Your task to perform on an android device: Clear all items from cart on walmart. Image 0: 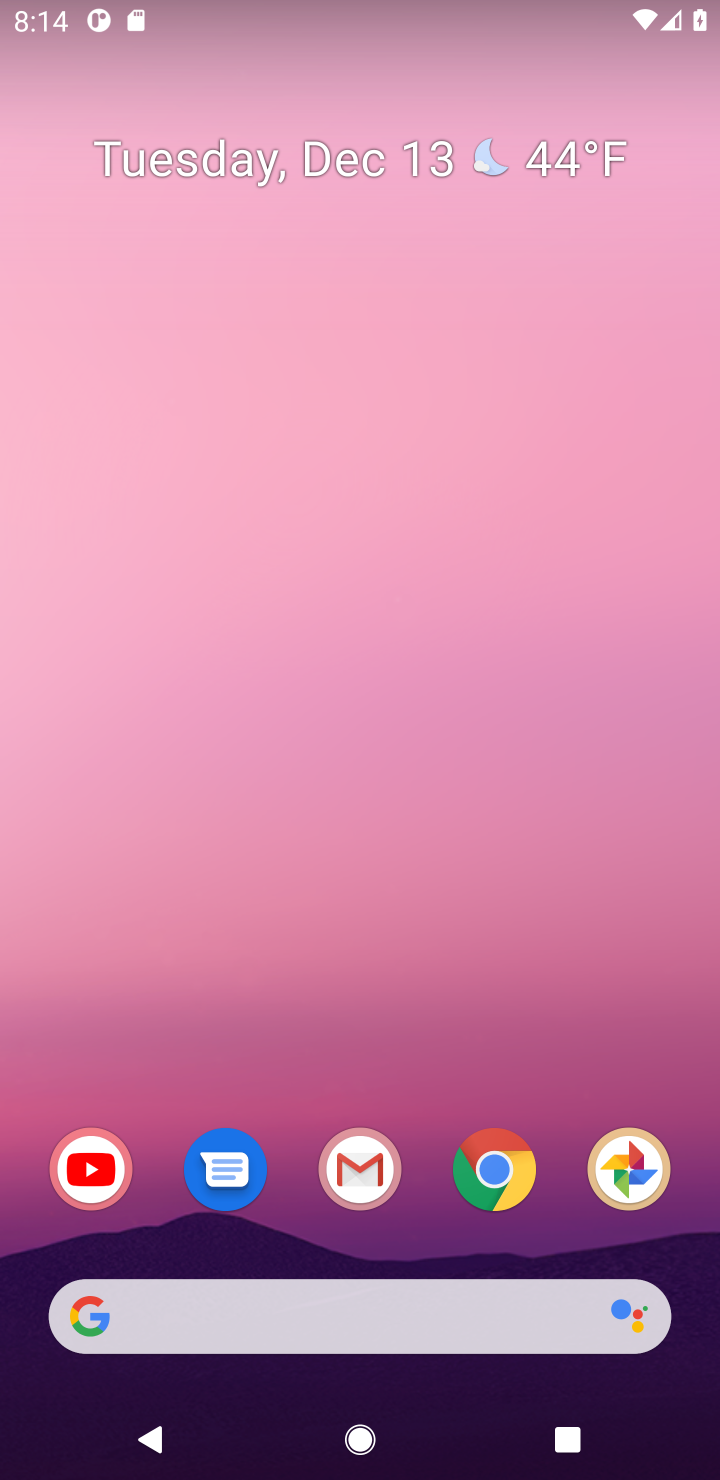
Step 0: click (401, 1300)
Your task to perform on an android device: Clear all items from cart on walmart. Image 1: 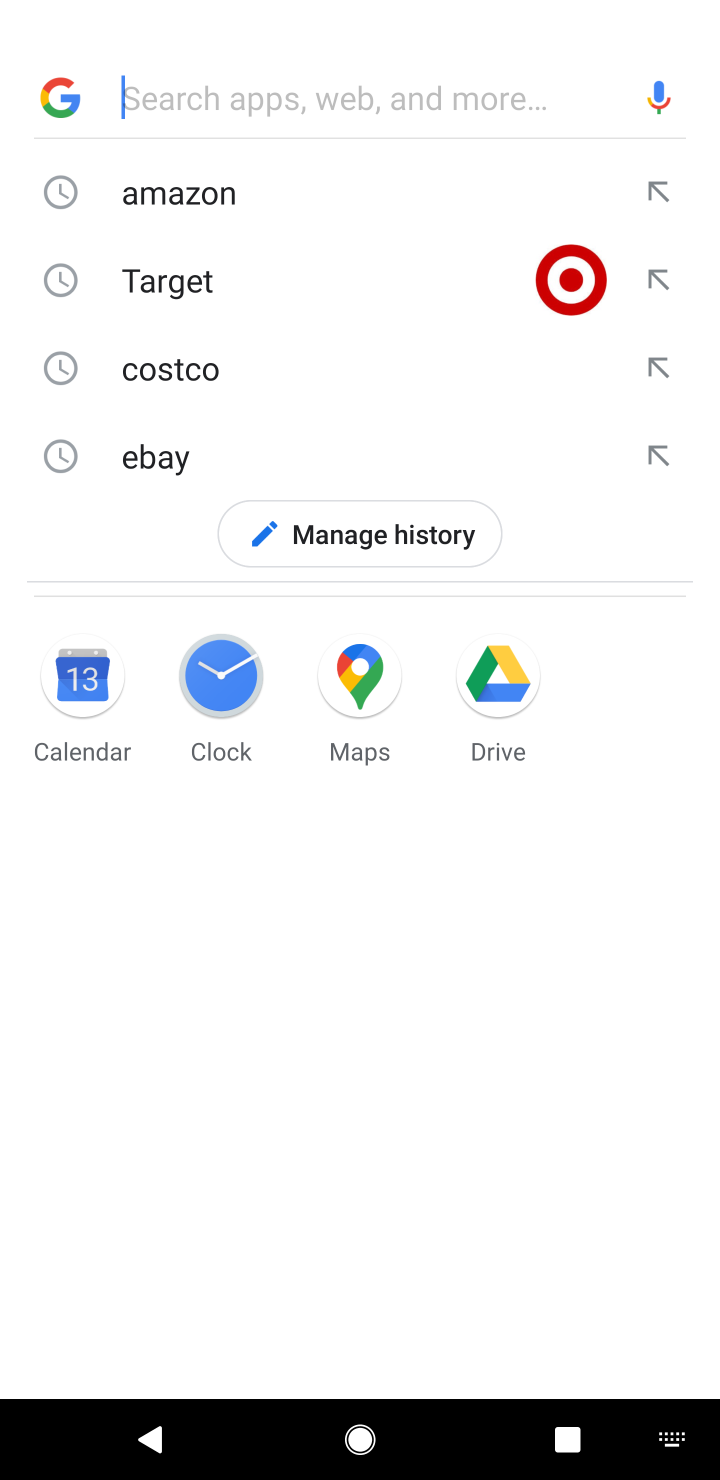
Step 1: type "walmart"
Your task to perform on an android device: Clear all items from cart on walmart. Image 2: 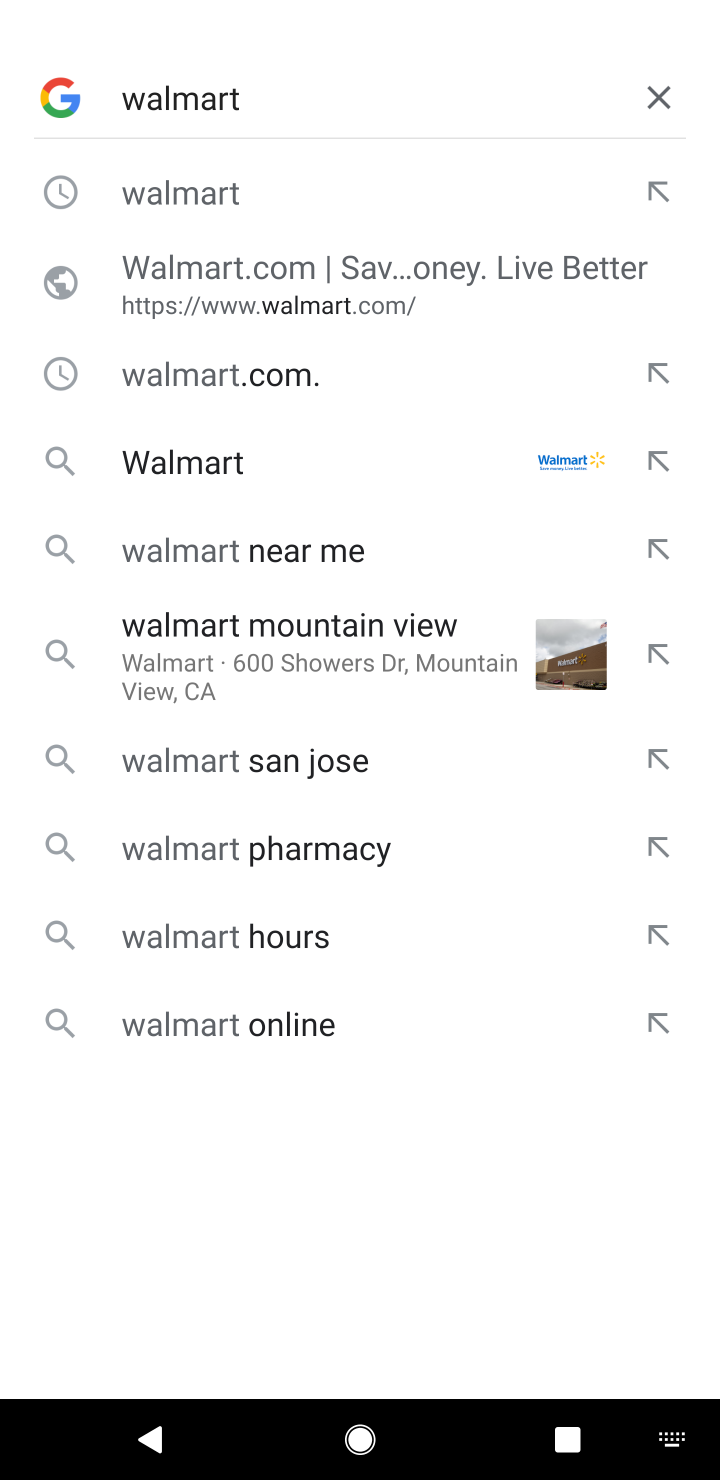
Step 2: click (240, 191)
Your task to perform on an android device: Clear all items from cart on walmart. Image 3: 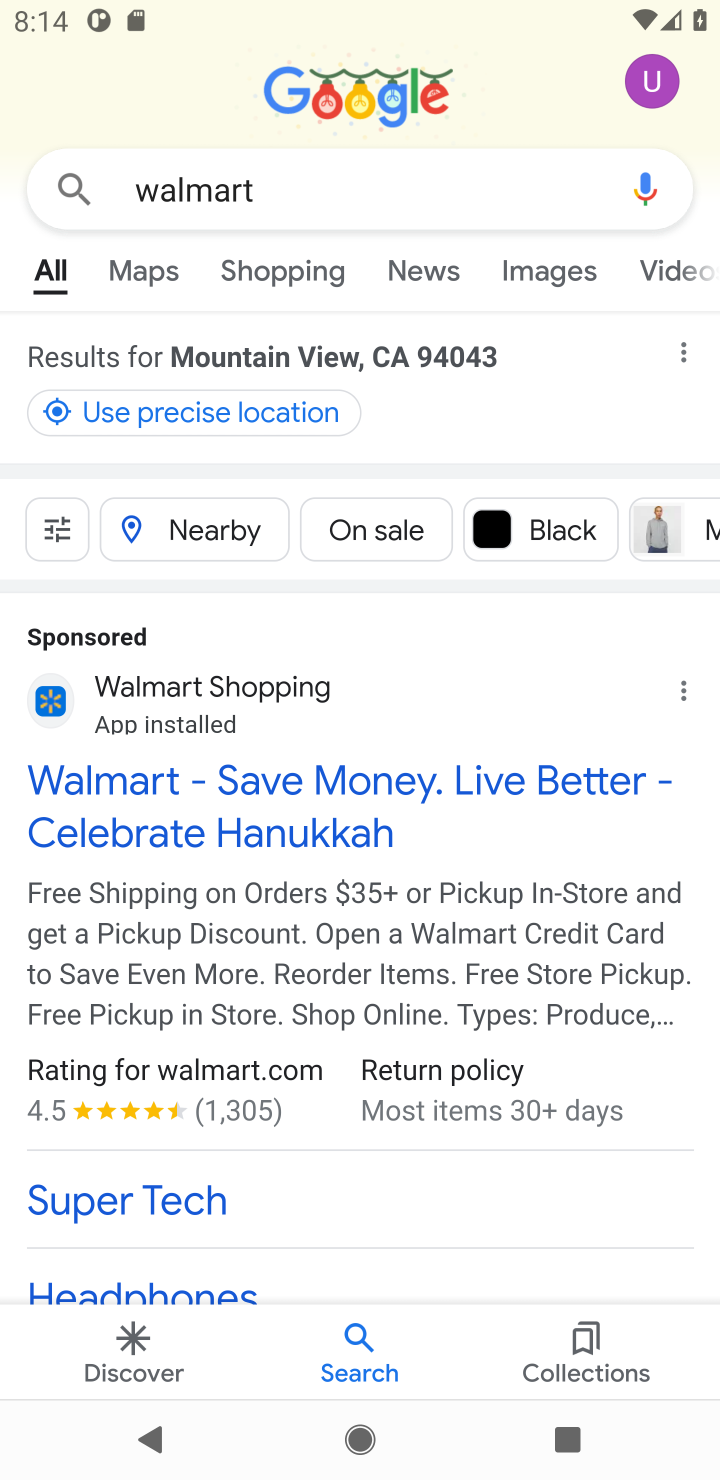
Step 3: click (173, 827)
Your task to perform on an android device: Clear all items from cart on walmart. Image 4: 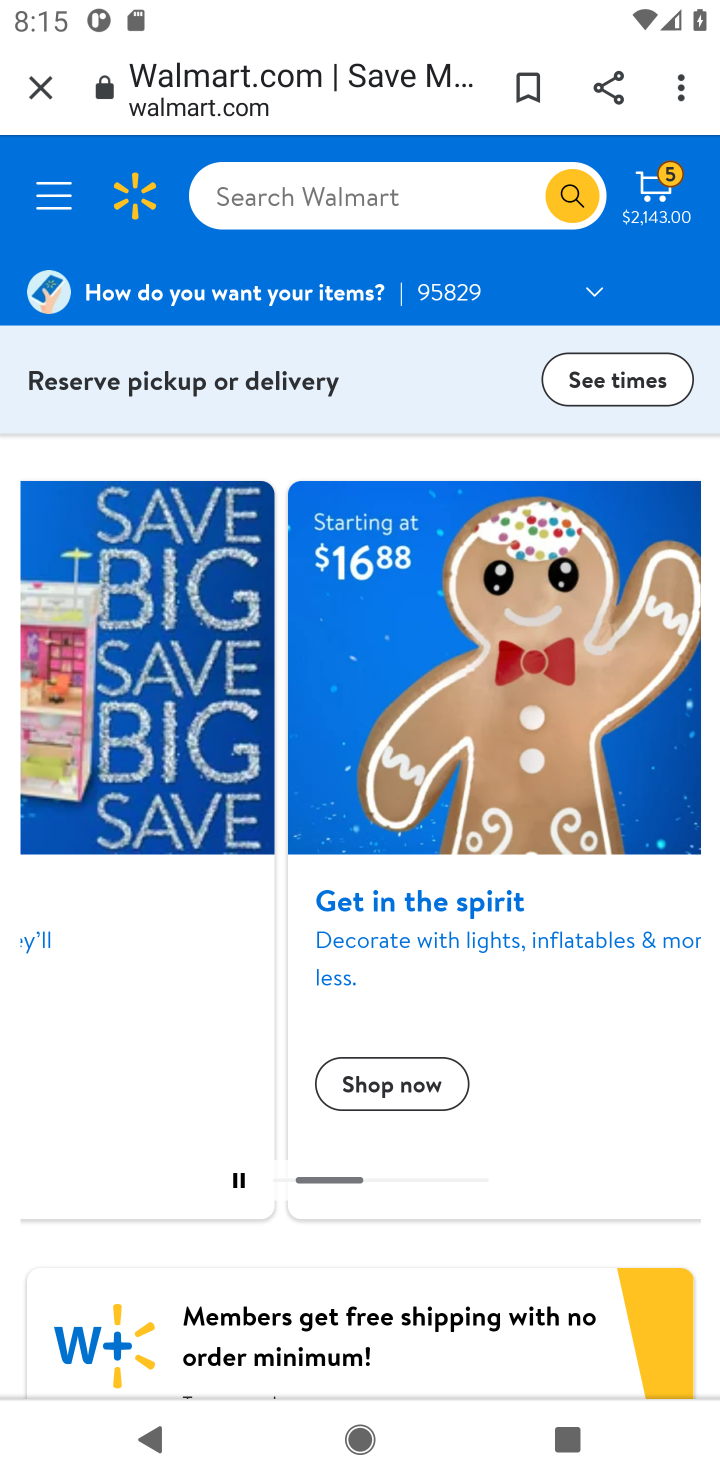
Step 4: click (371, 197)
Your task to perform on an android device: Clear all items from cart on walmart. Image 5: 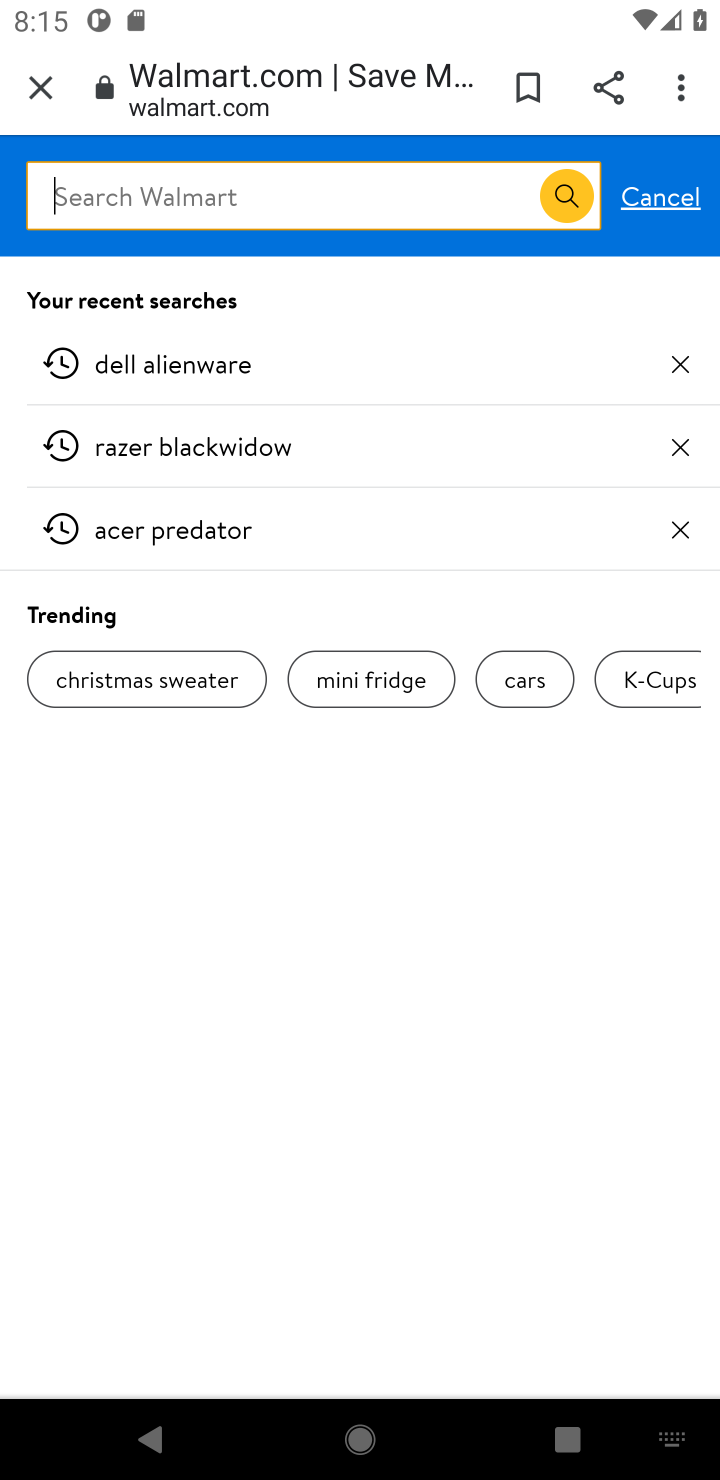
Step 5: click (659, 221)
Your task to perform on an android device: Clear all items from cart on walmart. Image 6: 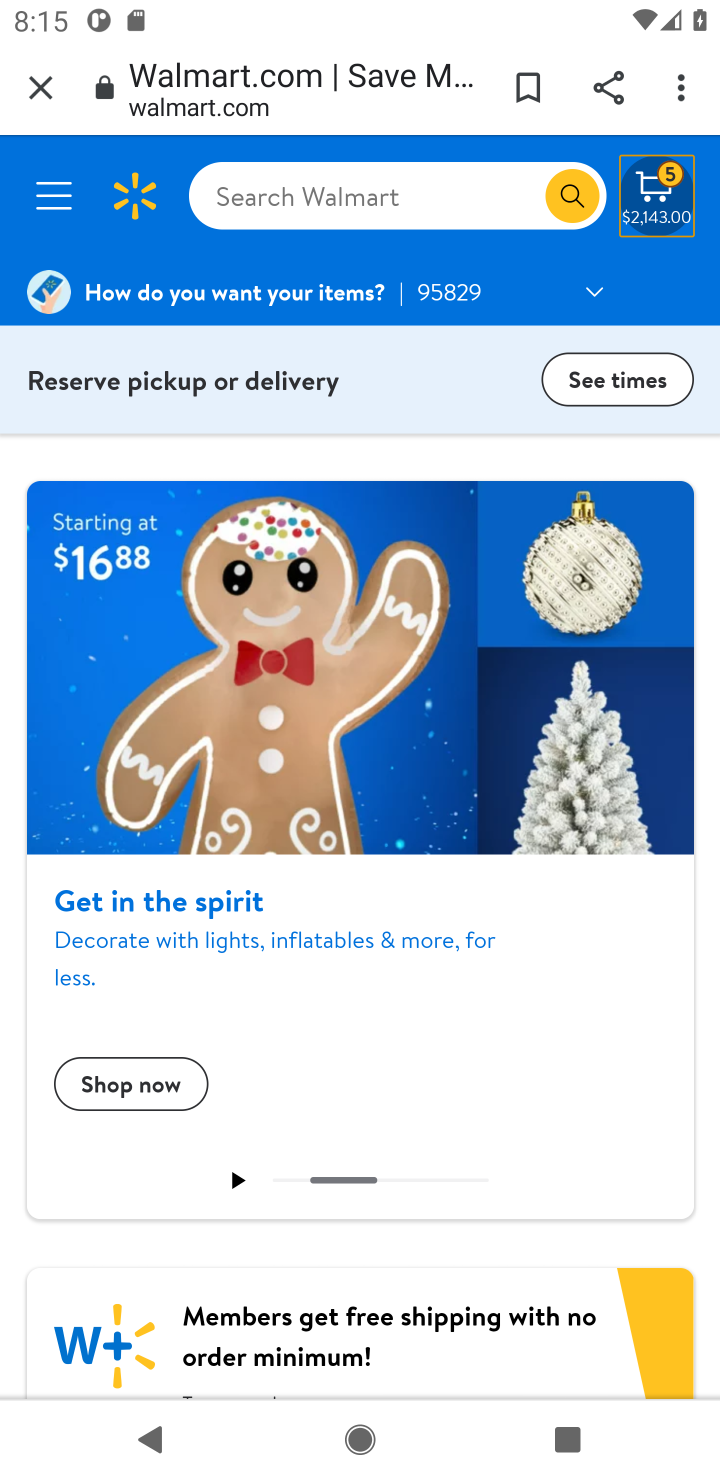
Step 6: click (659, 221)
Your task to perform on an android device: Clear all items from cart on walmart. Image 7: 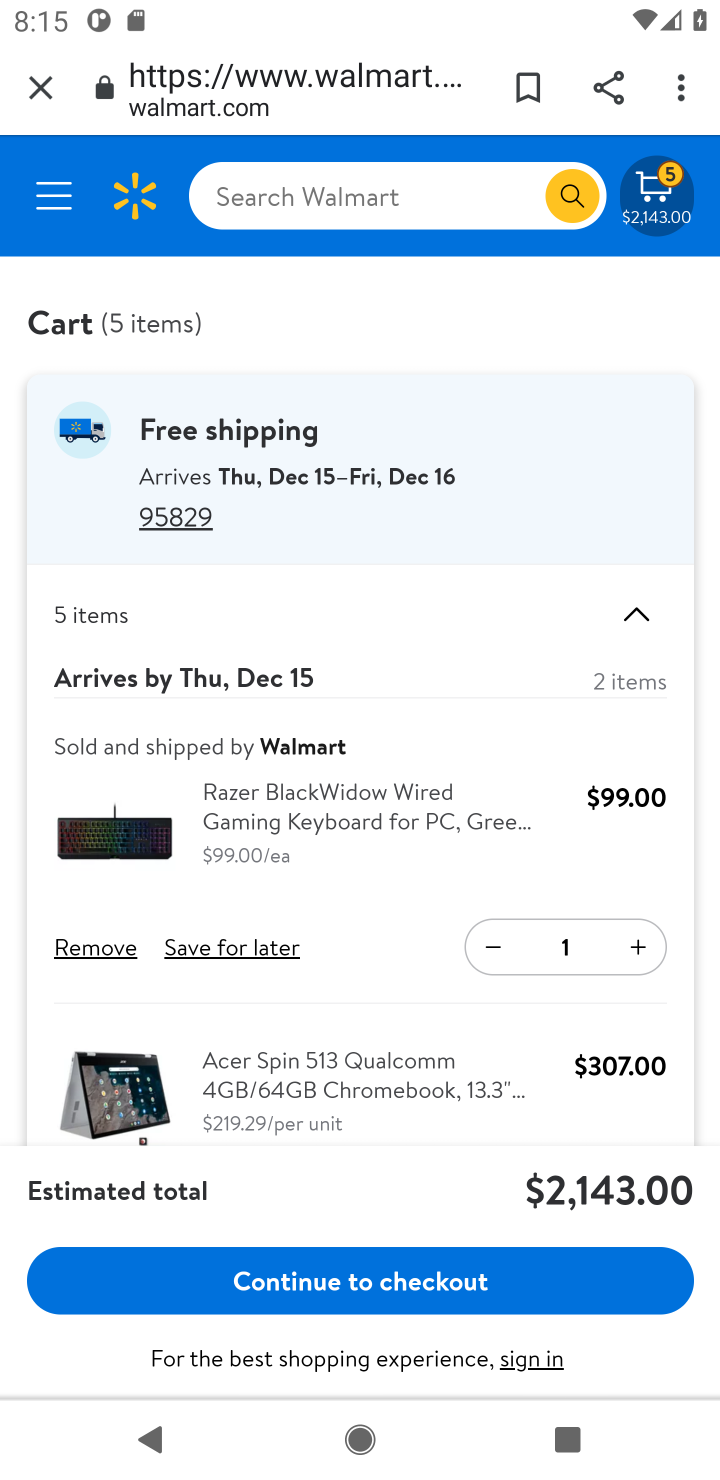
Step 7: click (479, 952)
Your task to perform on an android device: Clear all items from cart on walmart. Image 8: 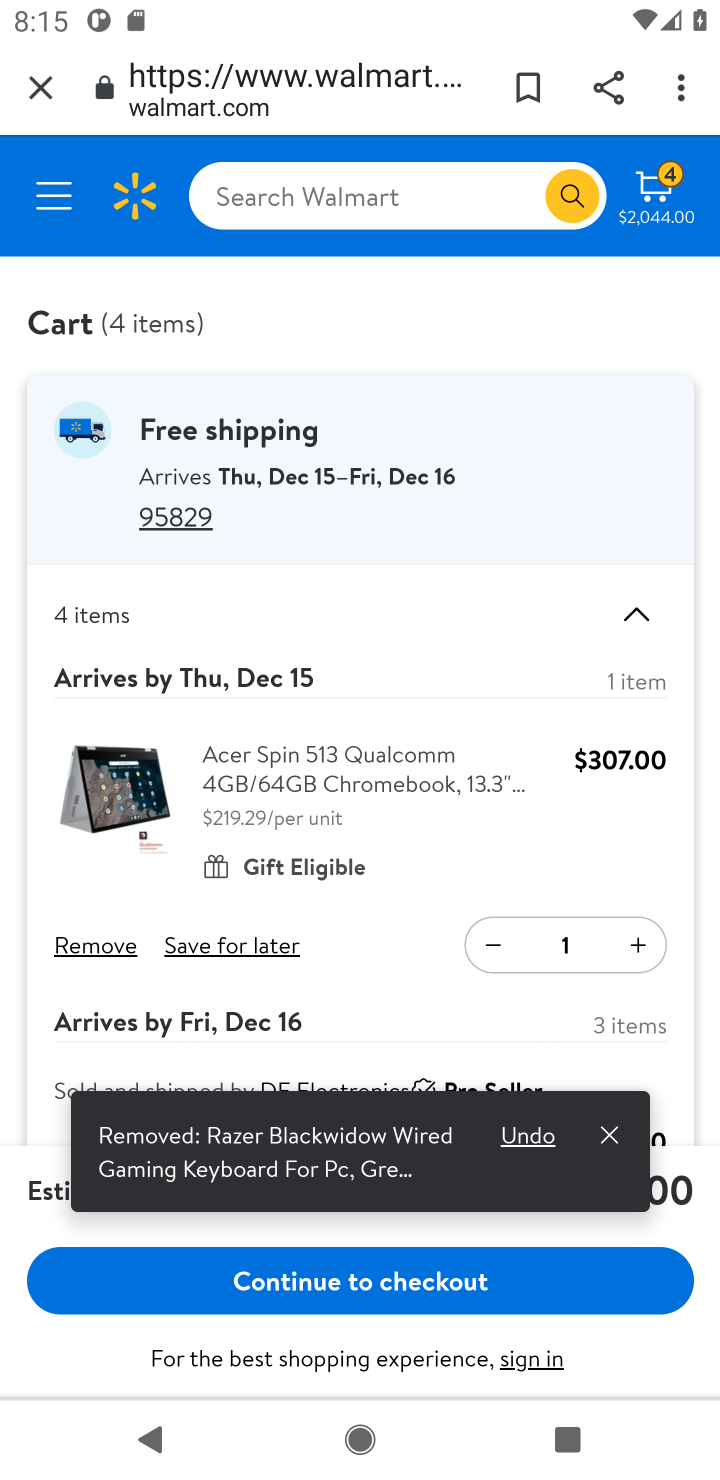
Step 8: click (479, 952)
Your task to perform on an android device: Clear all items from cart on walmart. Image 9: 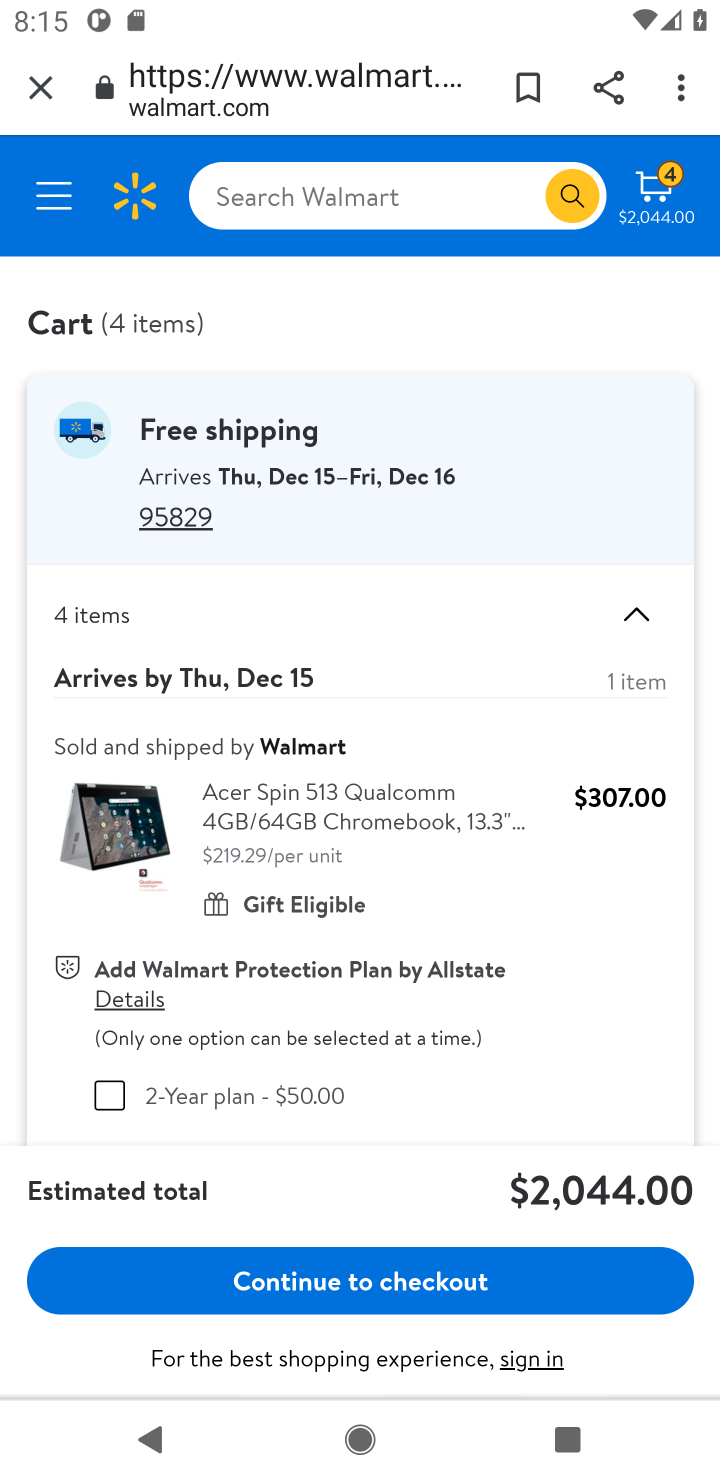
Step 9: click (610, 1156)
Your task to perform on an android device: Clear all items from cart on walmart. Image 10: 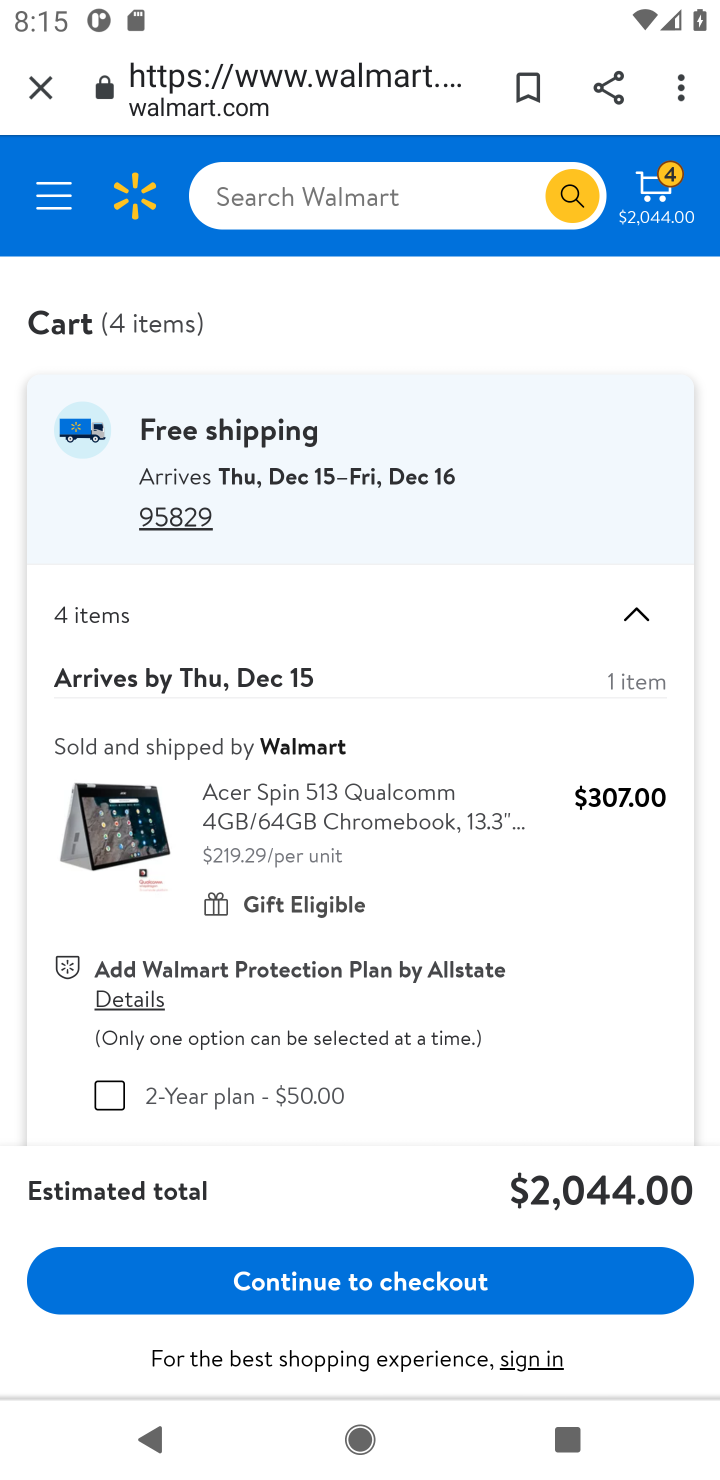
Step 10: drag from (321, 1042) to (343, 793)
Your task to perform on an android device: Clear all items from cart on walmart. Image 11: 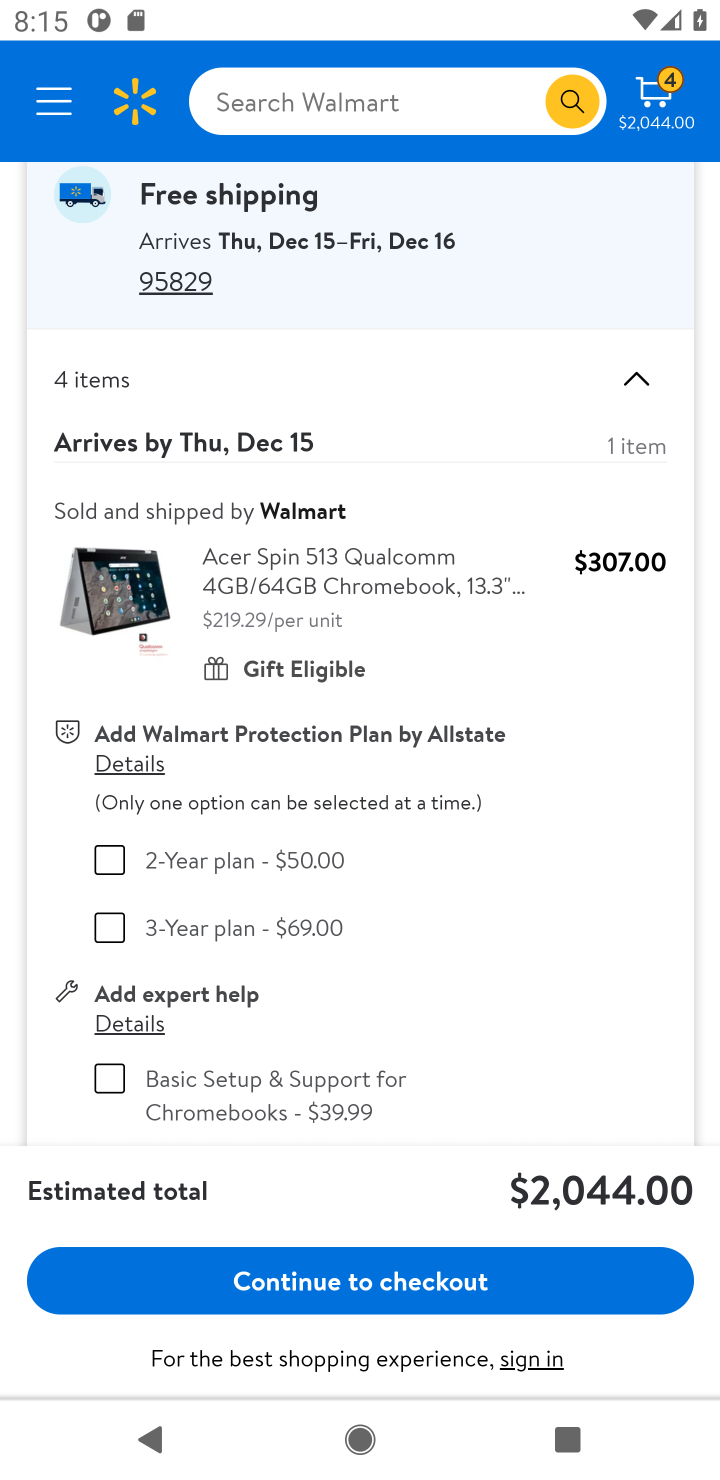
Step 11: drag from (267, 1018) to (328, 750)
Your task to perform on an android device: Clear all items from cart on walmart. Image 12: 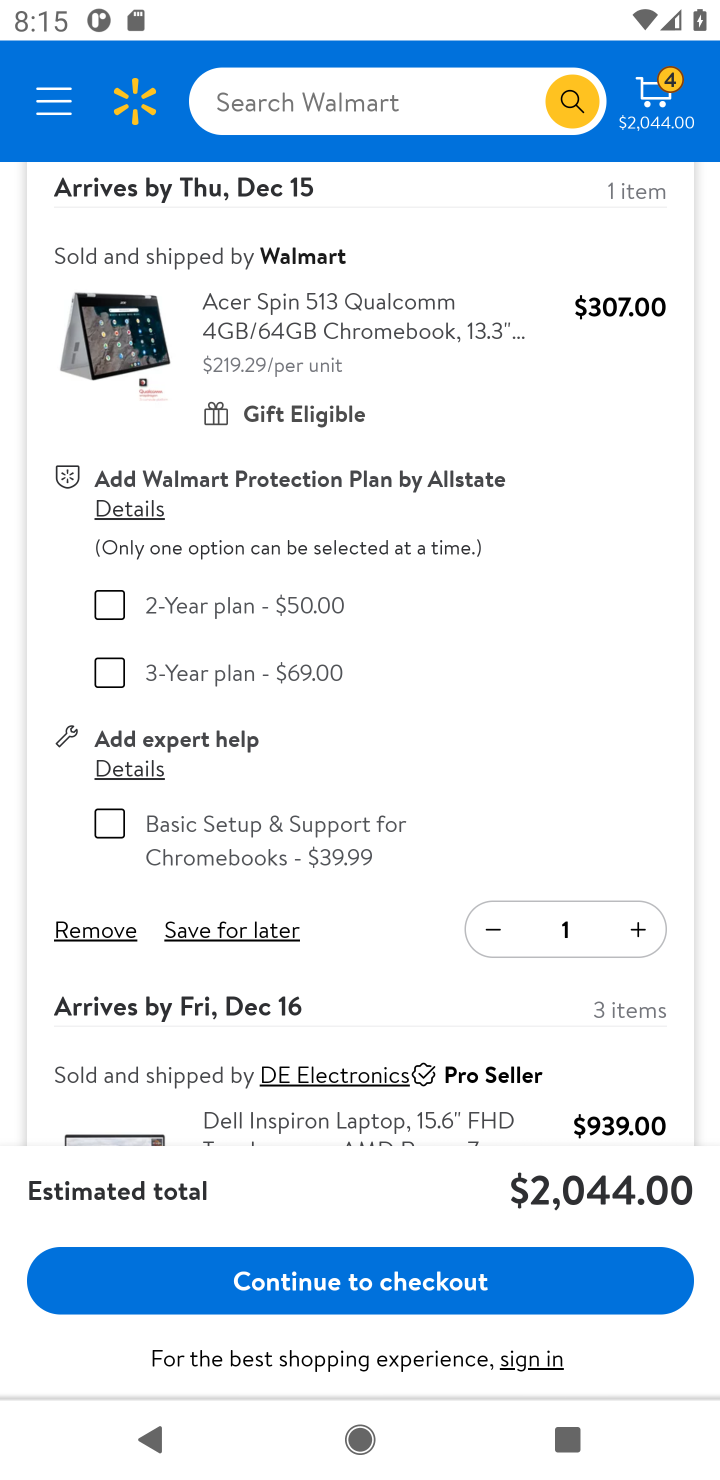
Step 12: click (89, 939)
Your task to perform on an android device: Clear all items from cart on walmart. Image 13: 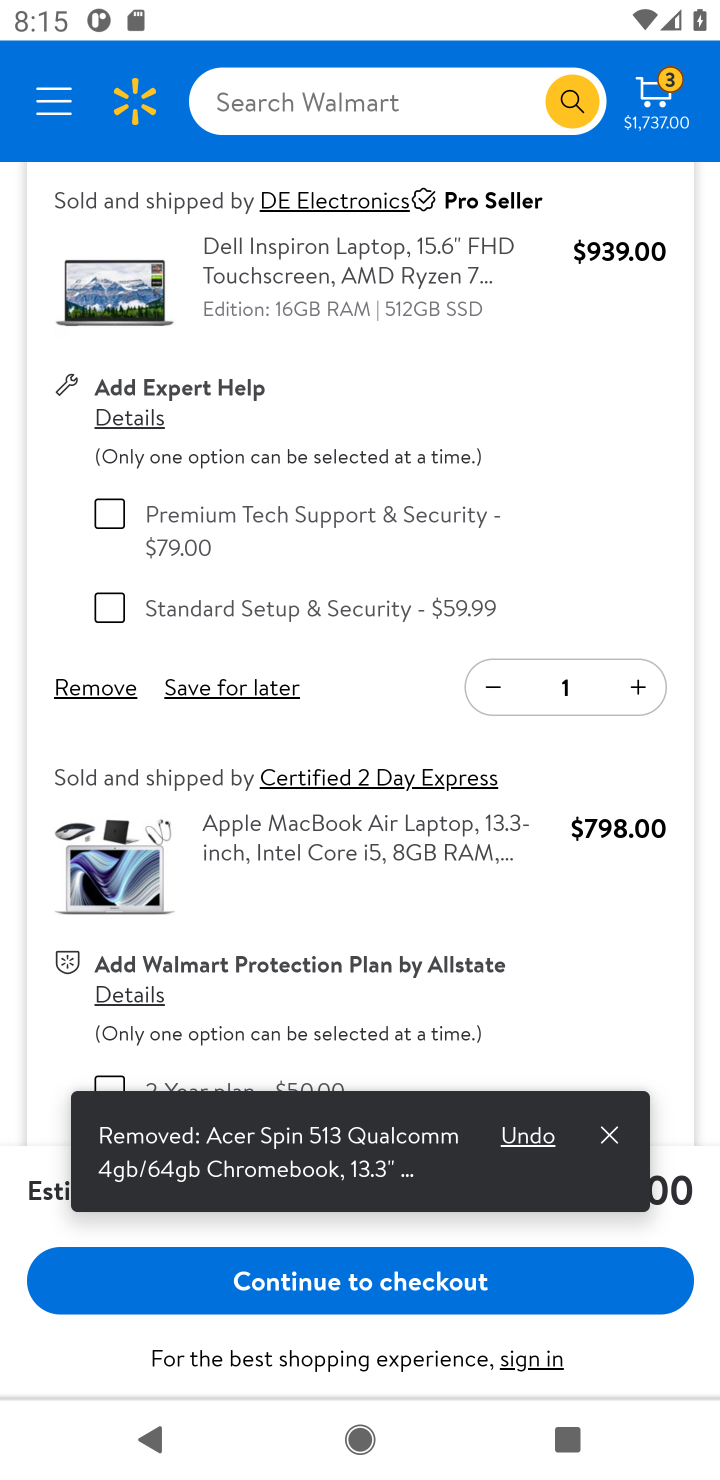
Step 13: click (93, 701)
Your task to perform on an android device: Clear all items from cart on walmart. Image 14: 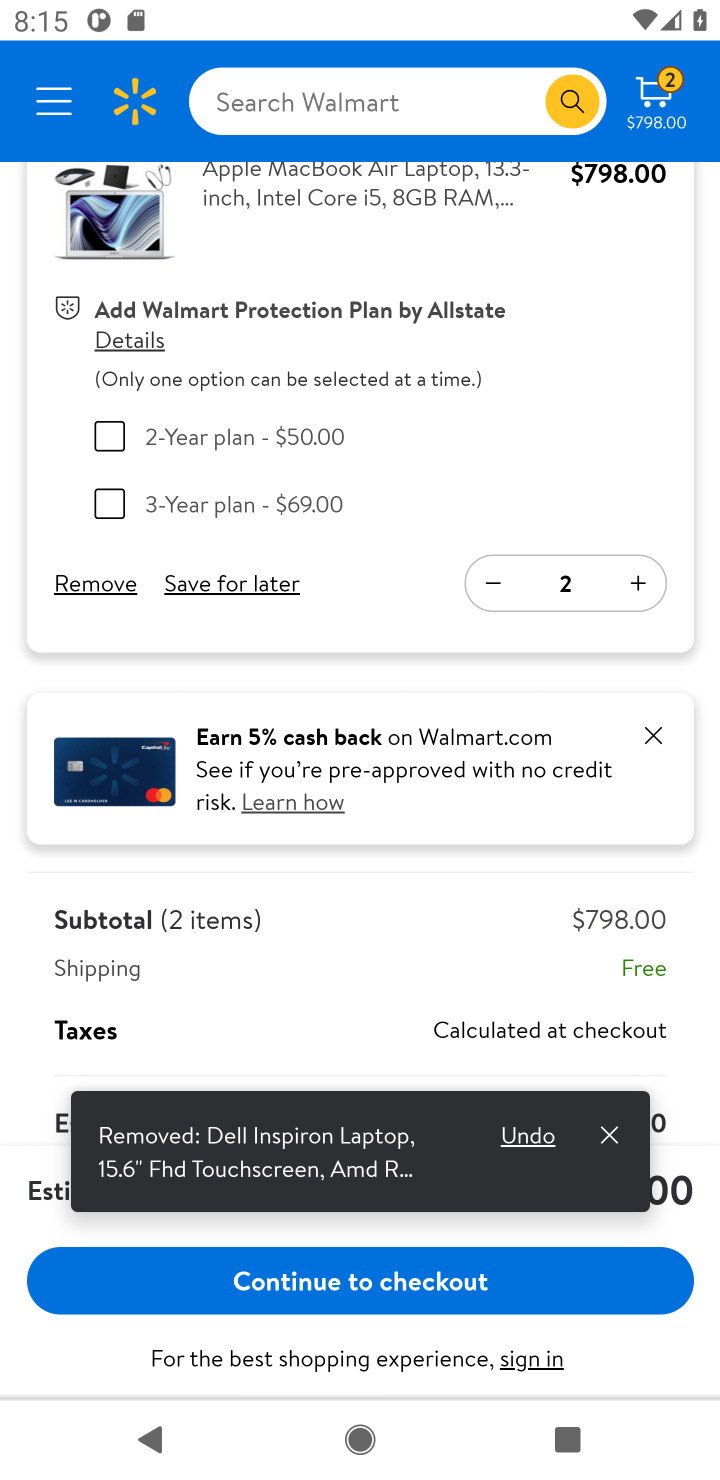
Step 14: click (89, 594)
Your task to perform on an android device: Clear all items from cart on walmart. Image 15: 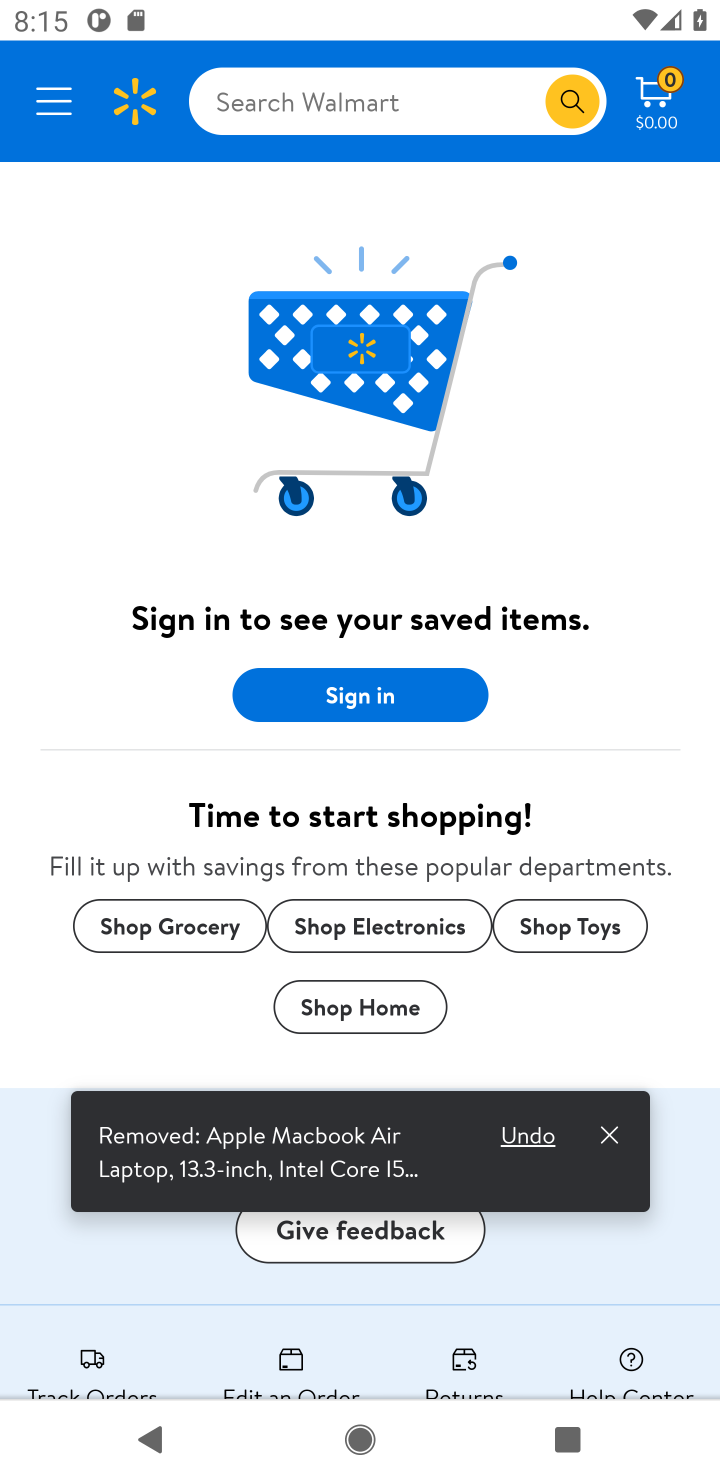
Step 15: task complete